Your task to perform on an android device: Set the phone to "Do not disturb". Image 0: 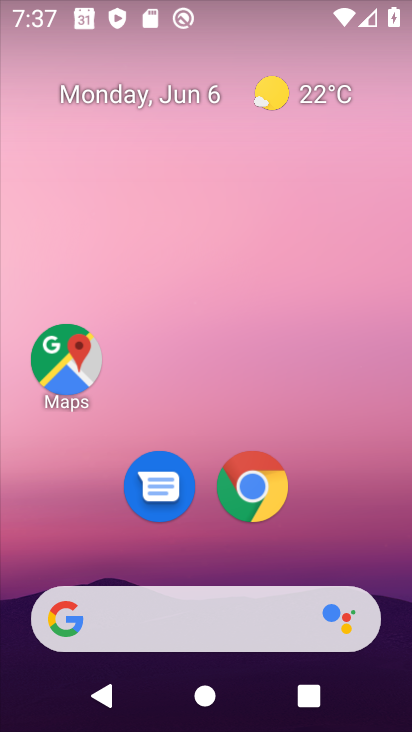
Step 0: drag from (246, 2) to (305, 506)
Your task to perform on an android device: Set the phone to "Do not disturb". Image 1: 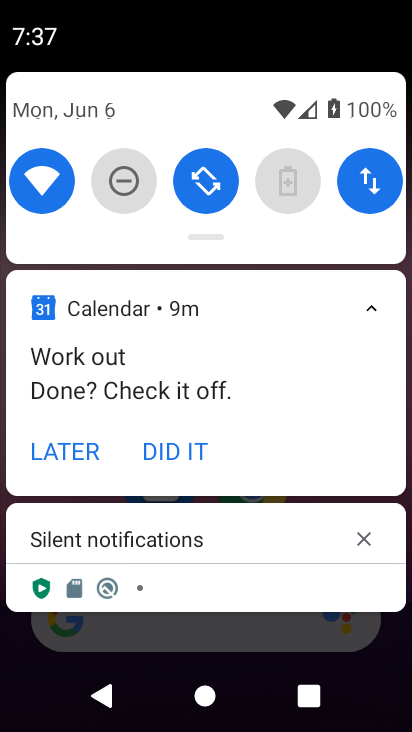
Step 1: click (129, 178)
Your task to perform on an android device: Set the phone to "Do not disturb". Image 2: 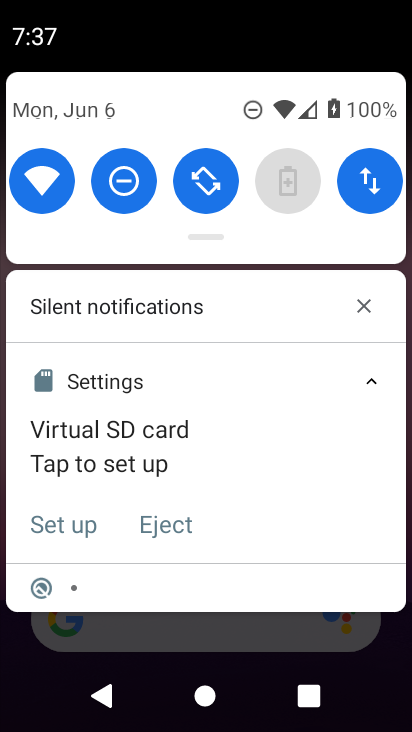
Step 2: task complete